Your task to perform on an android device: turn smart compose on in the gmail app Image 0: 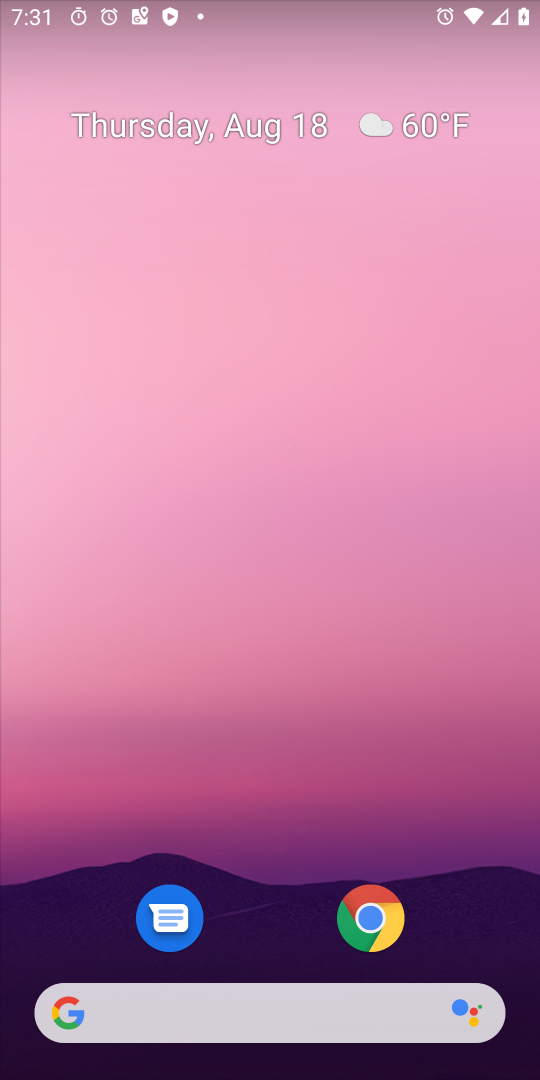
Step 0: press home button
Your task to perform on an android device: turn smart compose on in the gmail app Image 1: 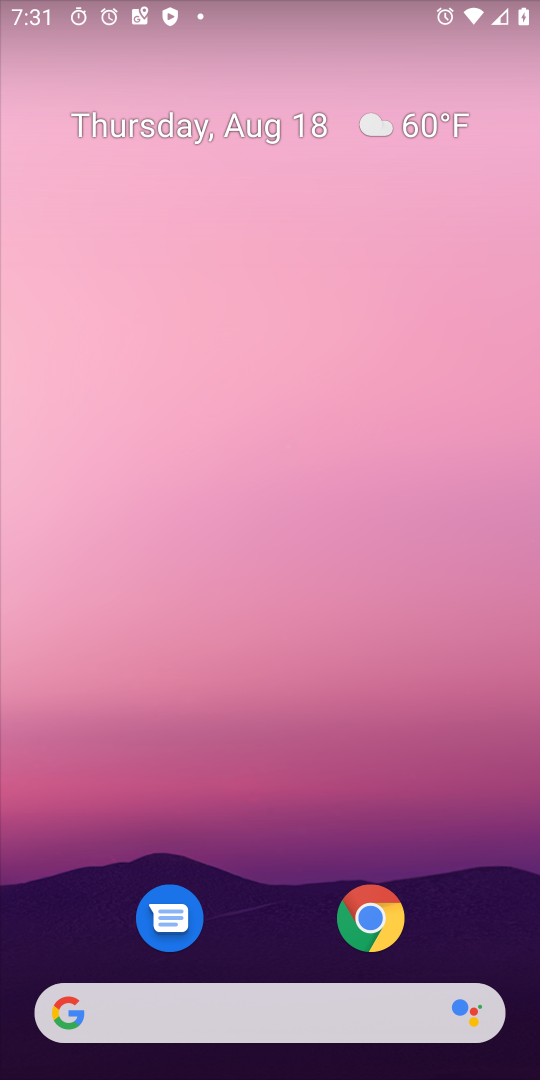
Step 1: drag from (271, 944) to (239, 1)
Your task to perform on an android device: turn smart compose on in the gmail app Image 2: 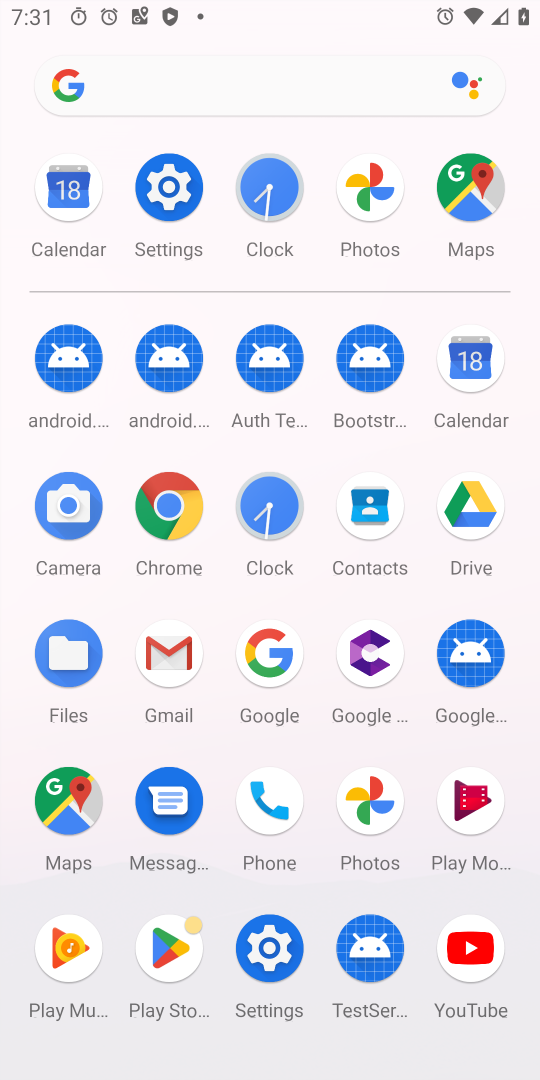
Step 2: click (177, 674)
Your task to perform on an android device: turn smart compose on in the gmail app Image 3: 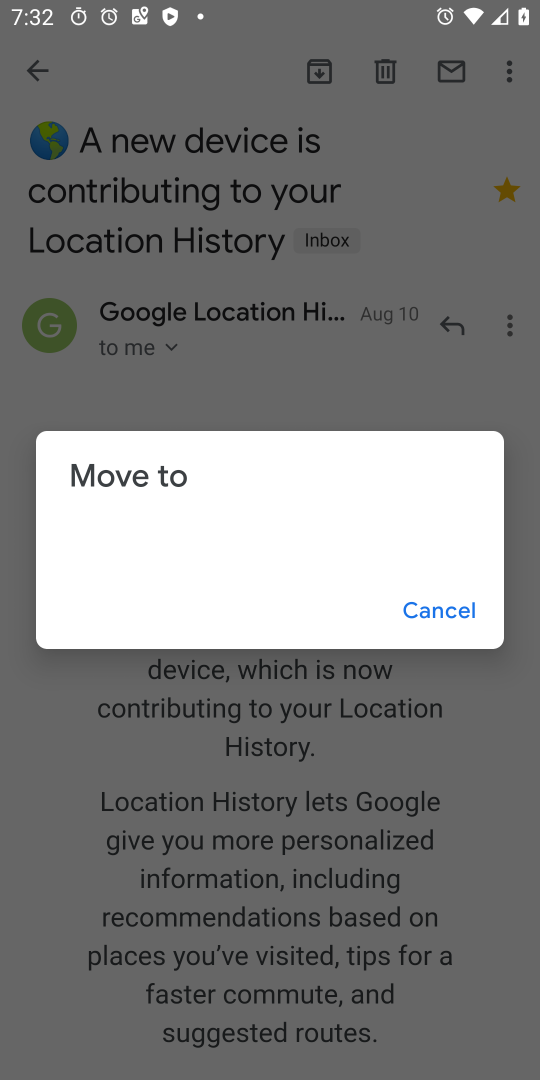
Step 3: press back button
Your task to perform on an android device: turn smart compose on in the gmail app Image 4: 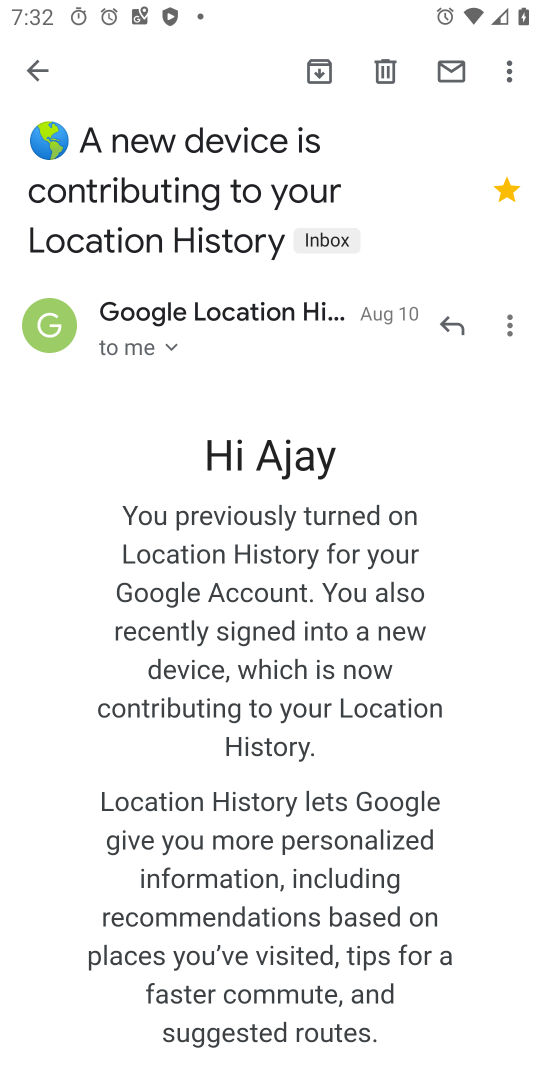
Step 4: press back button
Your task to perform on an android device: turn smart compose on in the gmail app Image 5: 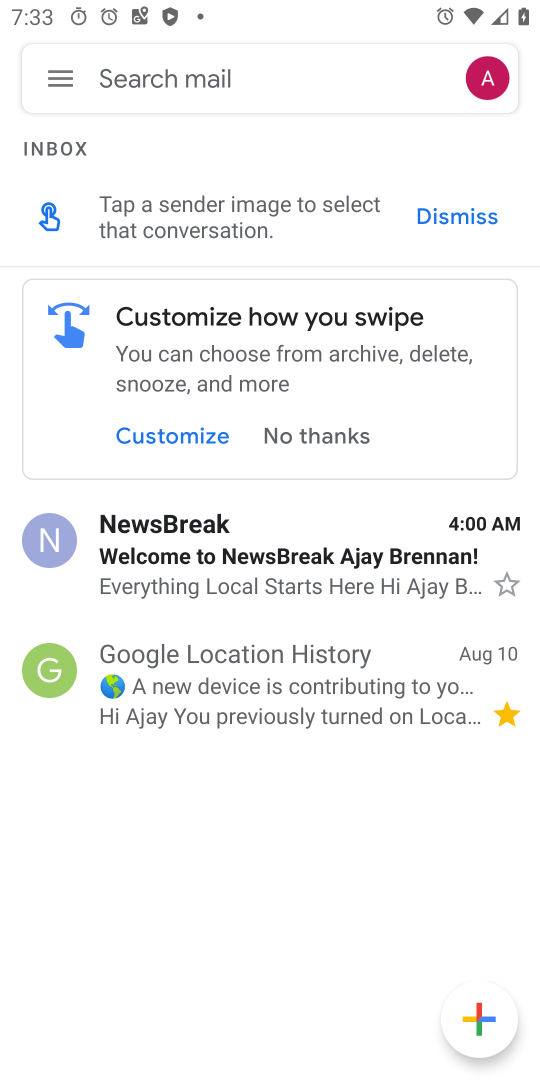
Step 5: click (59, 77)
Your task to perform on an android device: turn smart compose on in the gmail app Image 6: 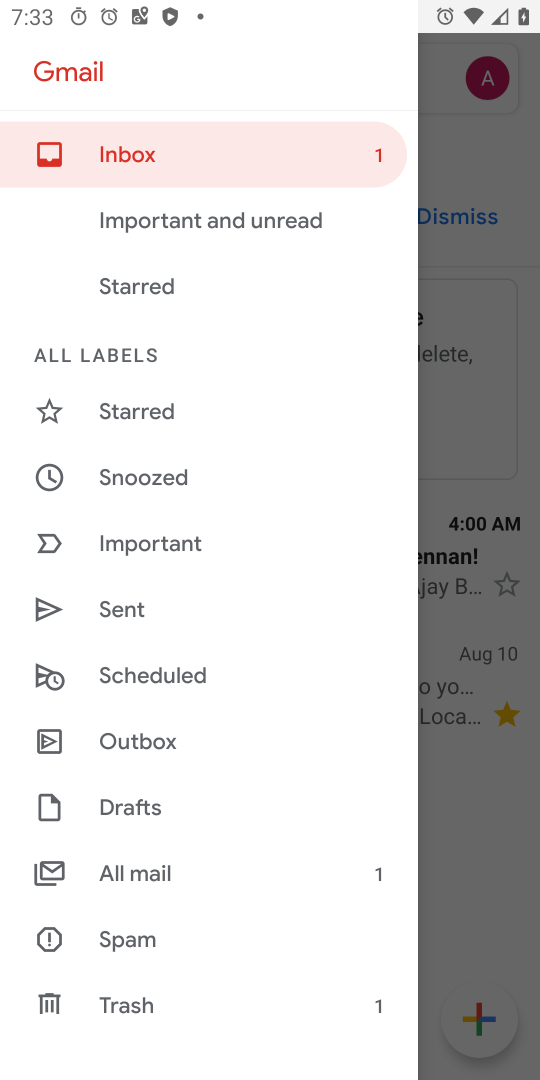
Step 6: drag from (234, 1004) to (198, 566)
Your task to perform on an android device: turn smart compose on in the gmail app Image 7: 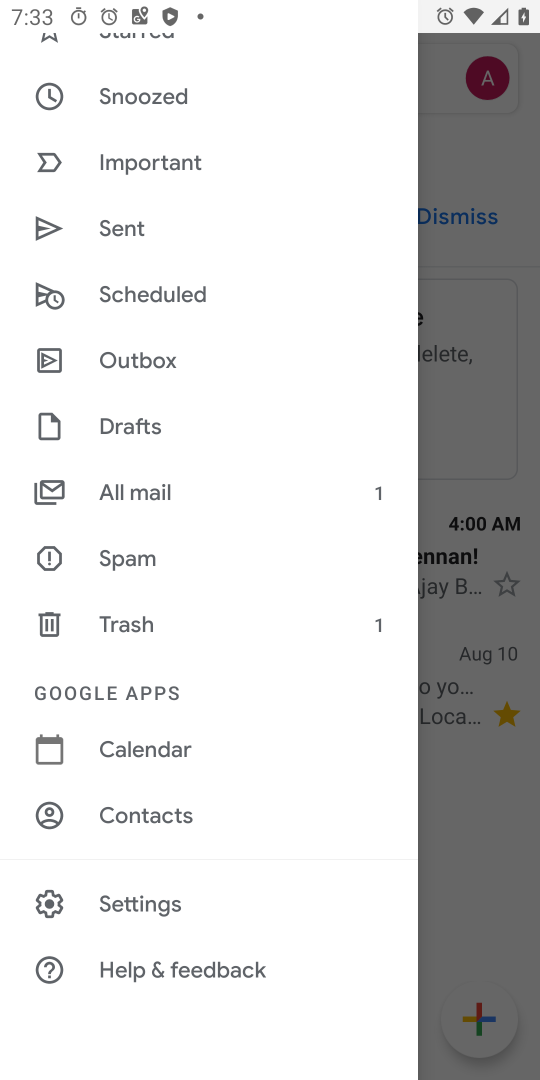
Step 7: click (138, 903)
Your task to perform on an android device: turn smart compose on in the gmail app Image 8: 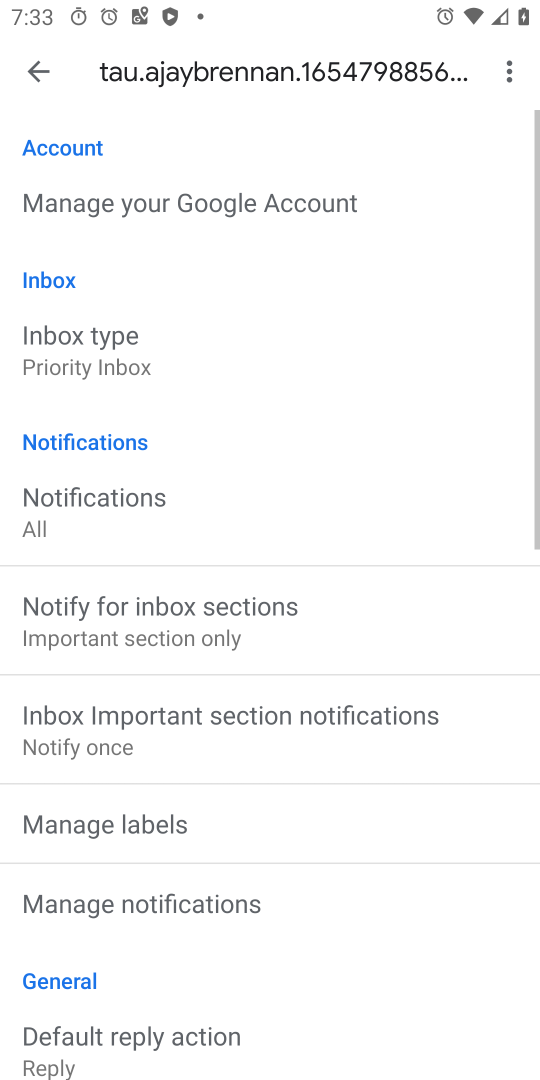
Step 8: task complete